Your task to perform on an android device: Go to Maps Image 0: 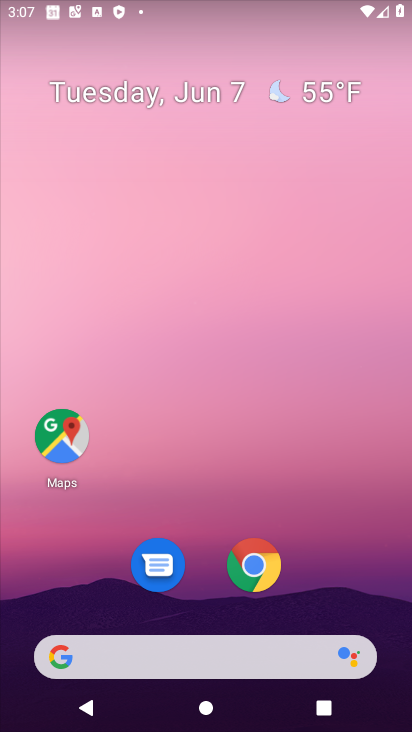
Step 0: drag from (251, 644) to (282, 193)
Your task to perform on an android device: Go to Maps Image 1: 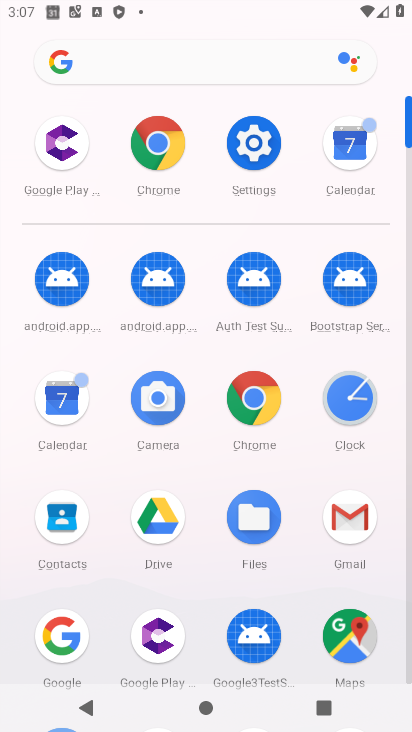
Step 1: click (356, 637)
Your task to perform on an android device: Go to Maps Image 2: 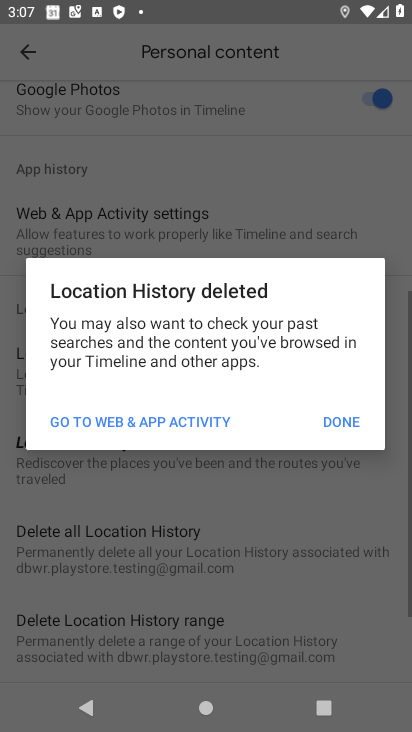
Step 2: click (350, 418)
Your task to perform on an android device: Go to Maps Image 3: 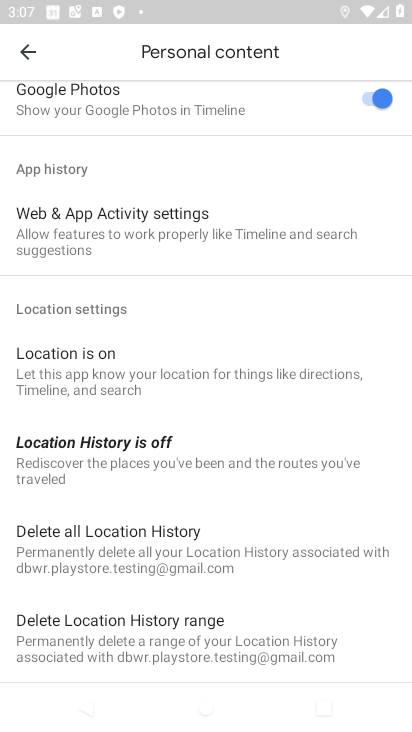
Step 3: task complete